Your task to perform on an android device: Open Google Chrome and click the shortcut for Amazon.com Image 0: 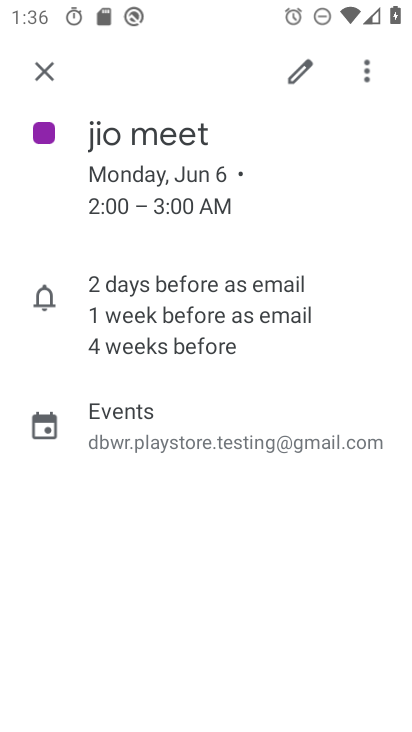
Step 0: press home button
Your task to perform on an android device: Open Google Chrome and click the shortcut for Amazon.com Image 1: 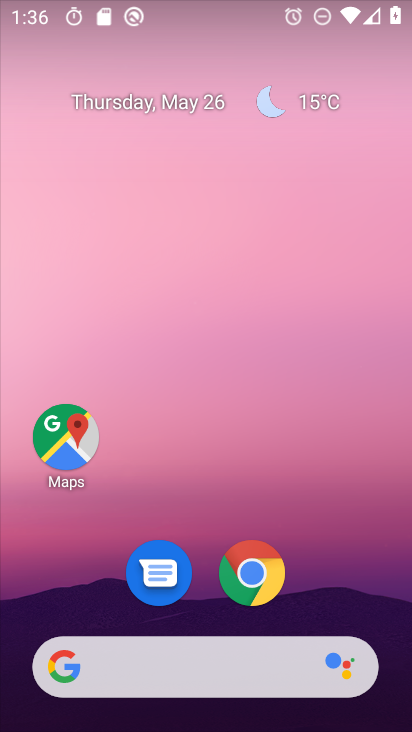
Step 1: click (250, 579)
Your task to perform on an android device: Open Google Chrome and click the shortcut for Amazon.com Image 2: 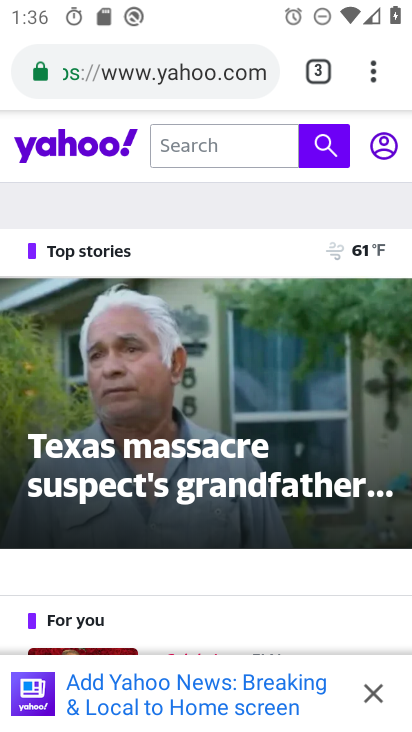
Step 2: click (374, 72)
Your task to perform on an android device: Open Google Chrome and click the shortcut for Amazon.com Image 3: 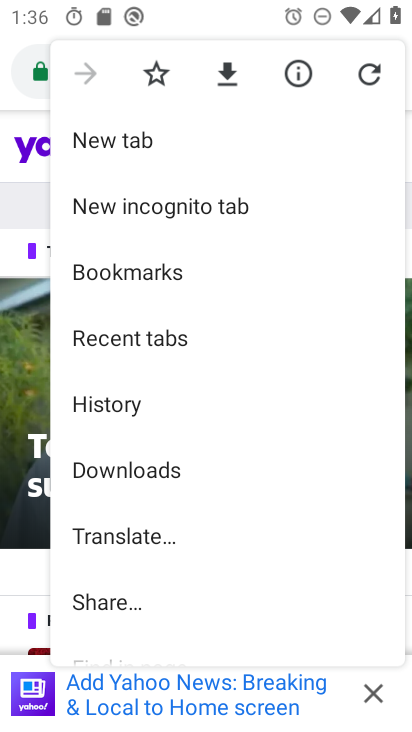
Step 3: click (104, 146)
Your task to perform on an android device: Open Google Chrome and click the shortcut for Amazon.com Image 4: 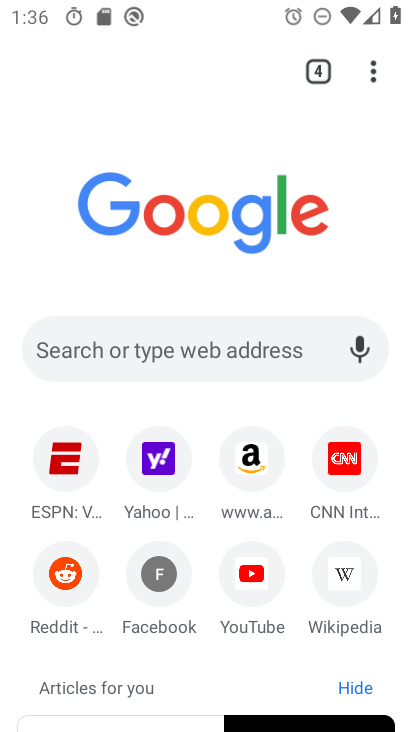
Step 4: click (240, 464)
Your task to perform on an android device: Open Google Chrome and click the shortcut for Amazon.com Image 5: 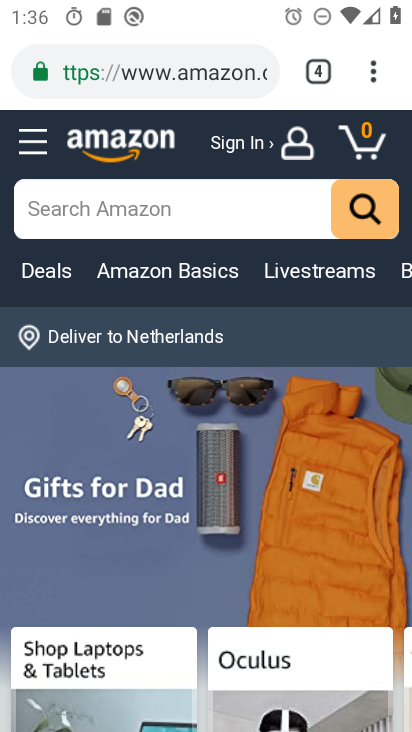
Step 5: task complete